Your task to perform on an android device: empty trash in the gmail app Image 0: 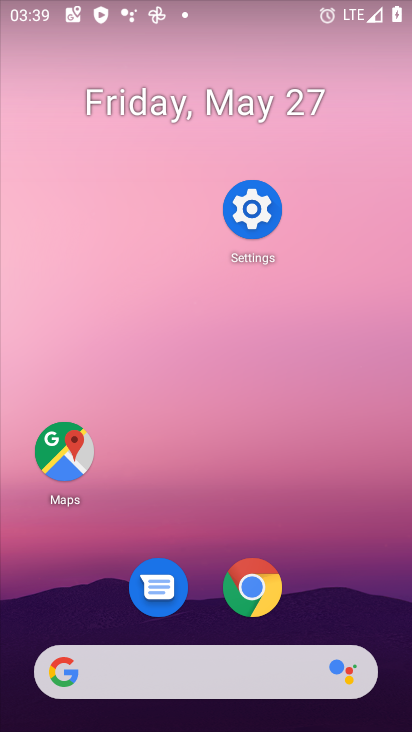
Step 0: press home button
Your task to perform on an android device: empty trash in the gmail app Image 1: 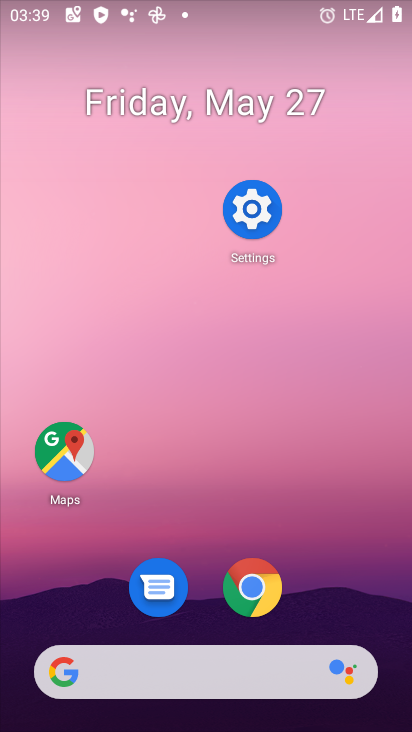
Step 1: drag from (342, 616) to (292, 232)
Your task to perform on an android device: empty trash in the gmail app Image 2: 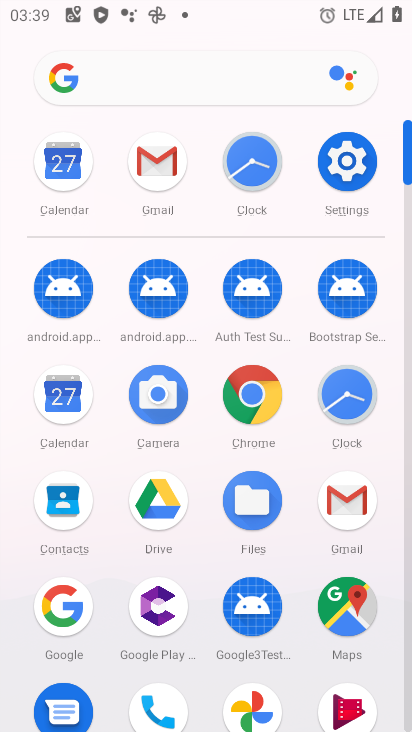
Step 2: click (154, 164)
Your task to perform on an android device: empty trash in the gmail app Image 3: 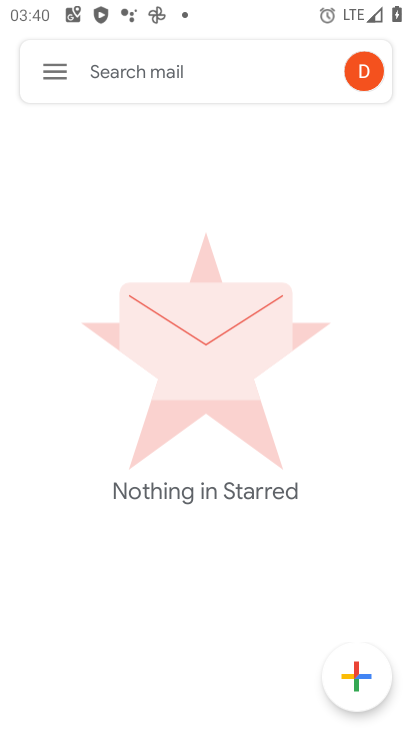
Step 3: click (43, 63)
Your task to perform on an android device: empty trash in the gmail app Image 4: 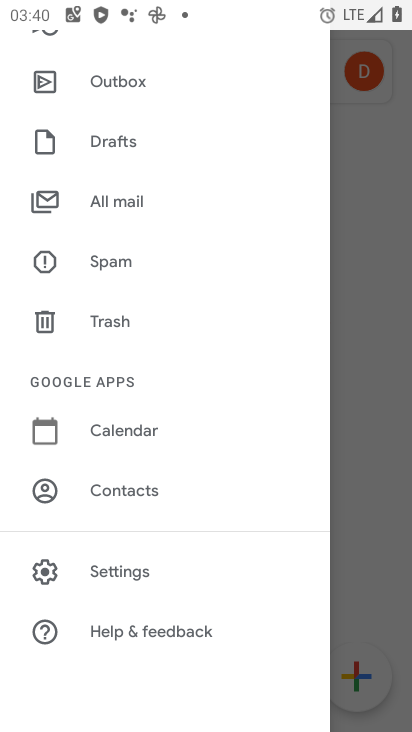
Step 4: click (108, 322)
Your task to perform on an android device: empty trash in the gmail app Image 5: 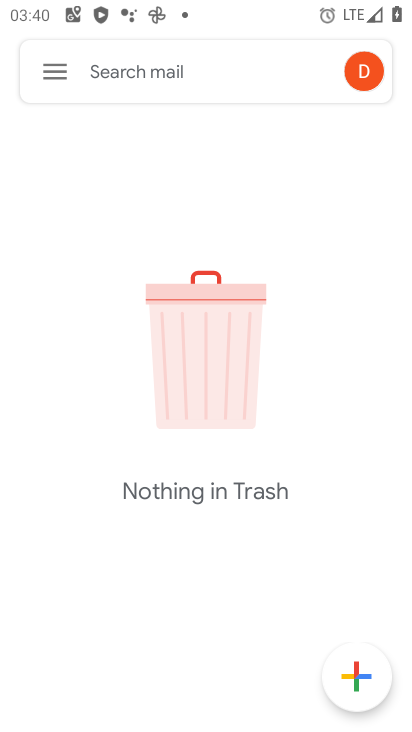
Step 5: task complete